Your task to perform on an android device: Go to battery settings Image 0: 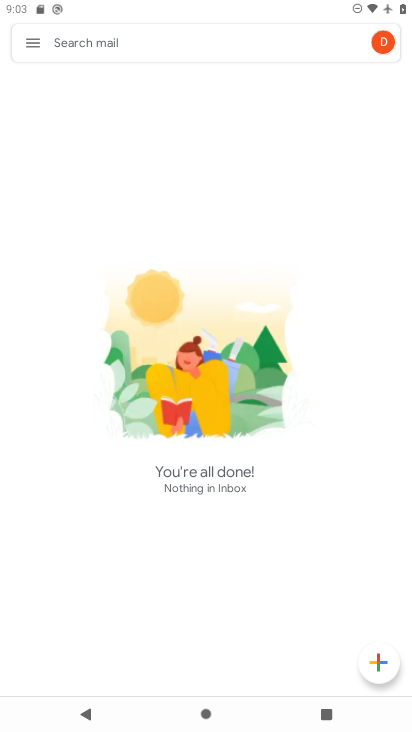
Step 0: press home button
Your task to perform on an android device: Go to battery settings Image 1: 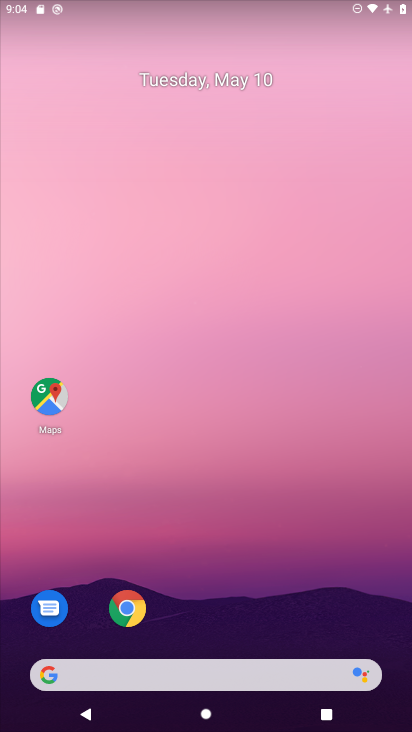
Step 1: drag from (192, 628) to (244, 190)
Your task to perform on an android device: Go to battery settings Image 2: 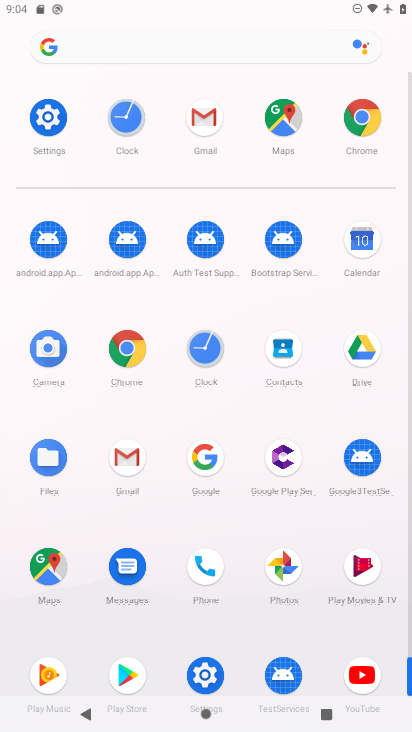
Step 2: click (44, 107)
Your task to perform on an android device: Go to battery settings Image 3: 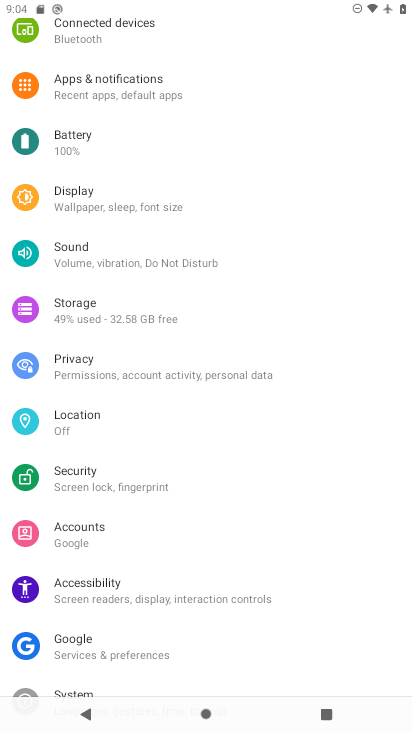
Step 3: click (93, 140)
Your task to perform on an android device: Go to battery settings Image 4: 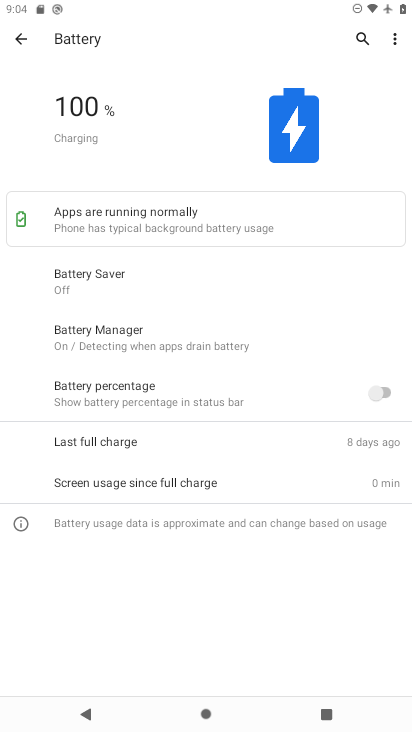
Step 4: task complete